Your task to perform on an android device: Open the stopwatch Image 0: 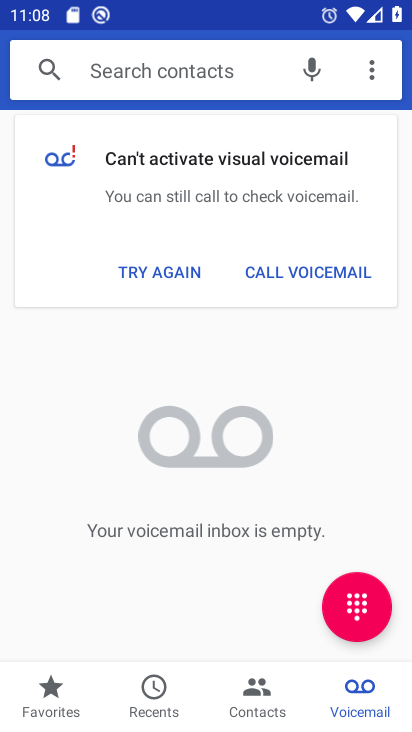
Step 0: press home button
Your task to perform on an android device: Open the stopwatch Image 1: 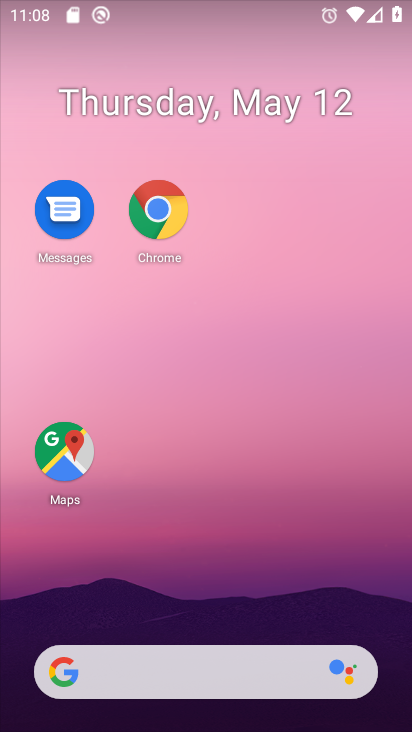
Step 1: drag from (238, 527) to (281, 143)
Your task to perform on an android device: Open the stopwatch Image 2: 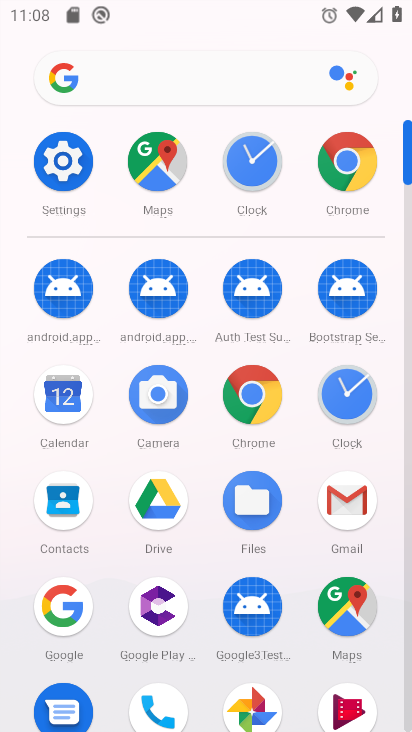
Step 2: click (344, 396)
Your task to perform on an android device: Open the stopwatch Image 3: 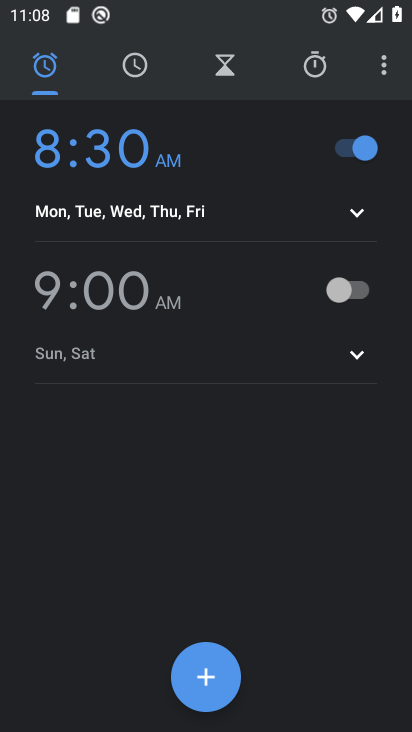
Step 3: click (317, 79)
Your task to perform on an android device: Open the stopwatch Image 4: 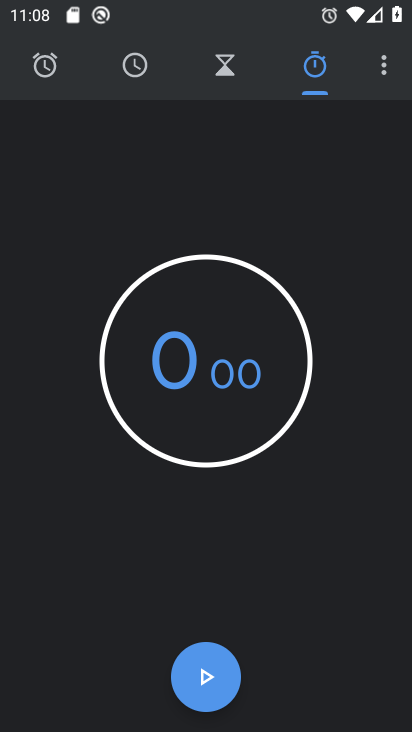
Step 4: task complete